Your task to perform on an android device: turn off airplane mode Image 0: 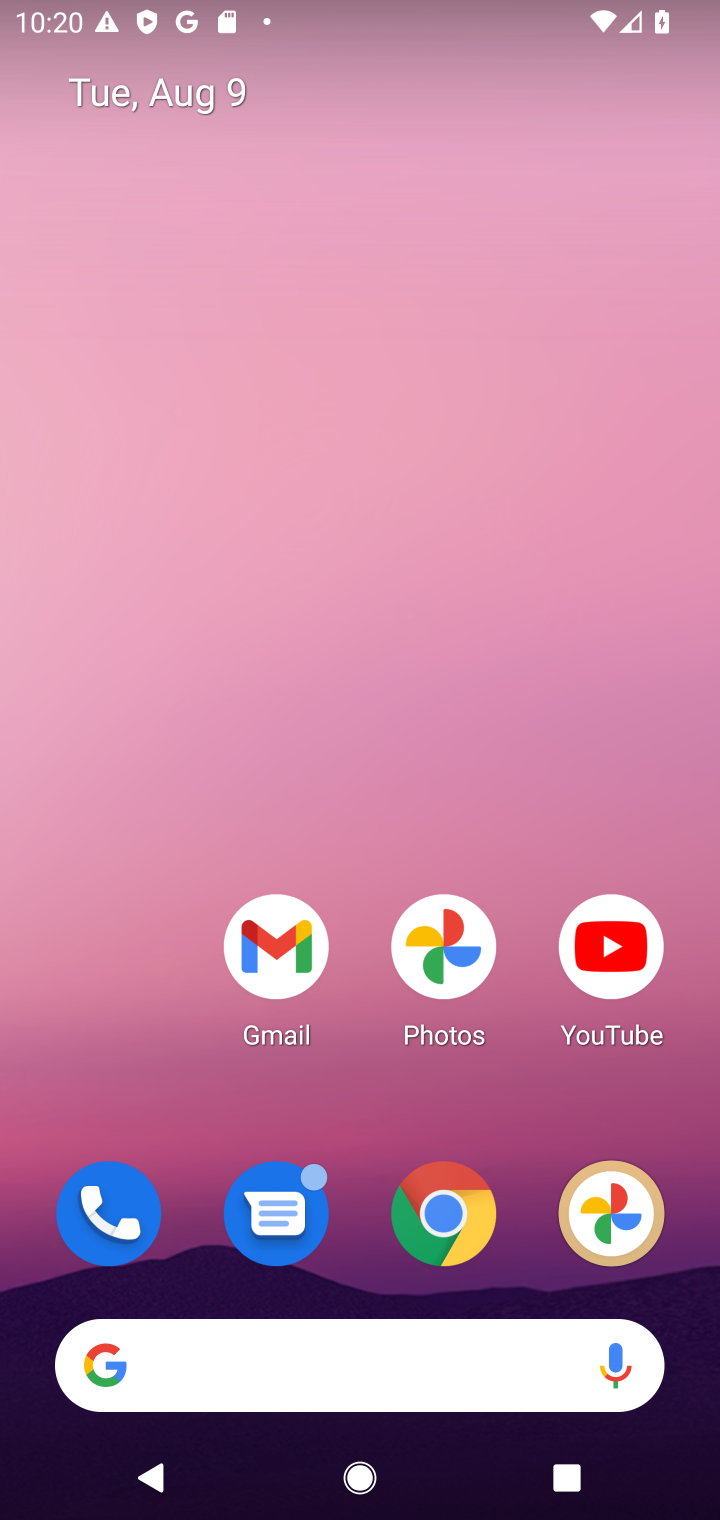
Step 0: drag from (344, 1282) to (394, 44)
Your task to perform on an android device: turn off airplane mode Image 1: 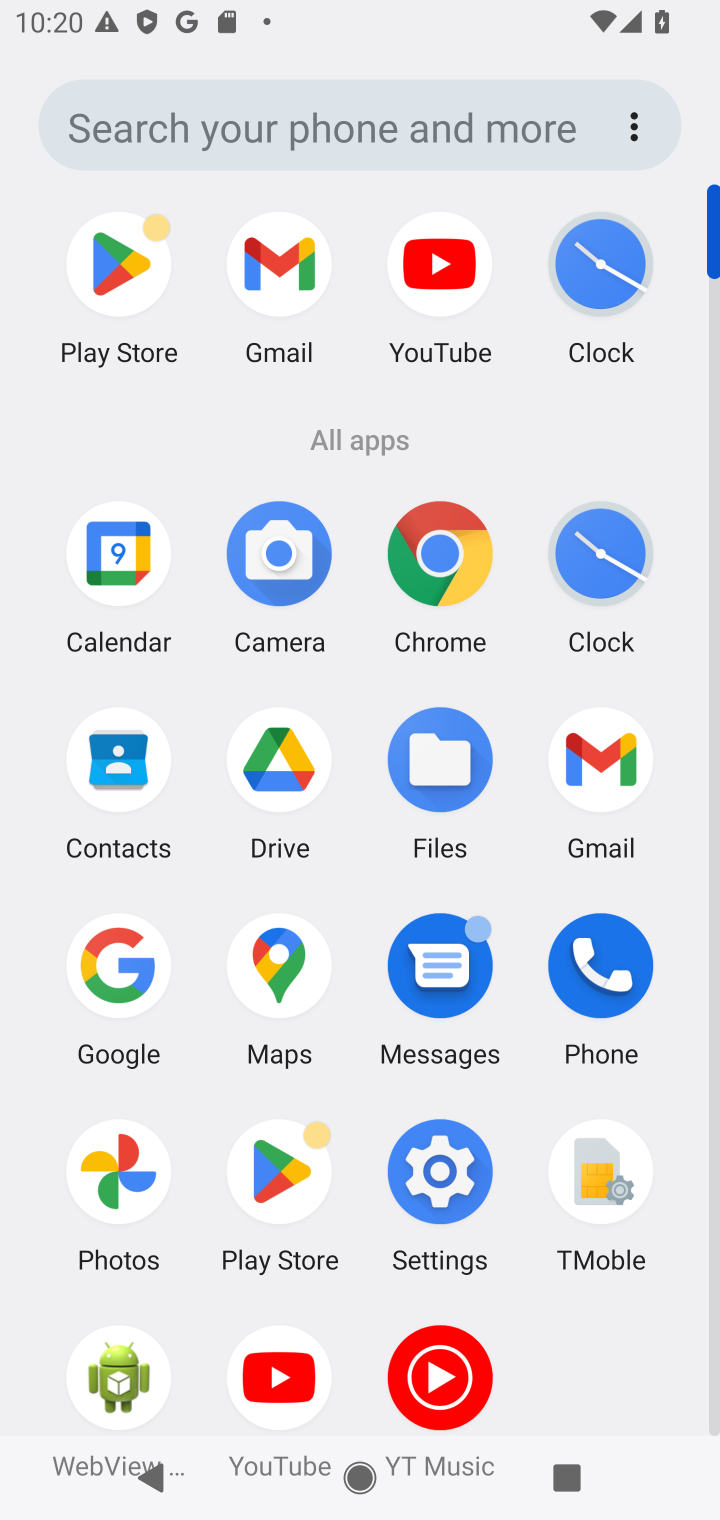
Step 1: click (457, 1197)
Your task to perform on an android device: turn off airplane mode Image 2: 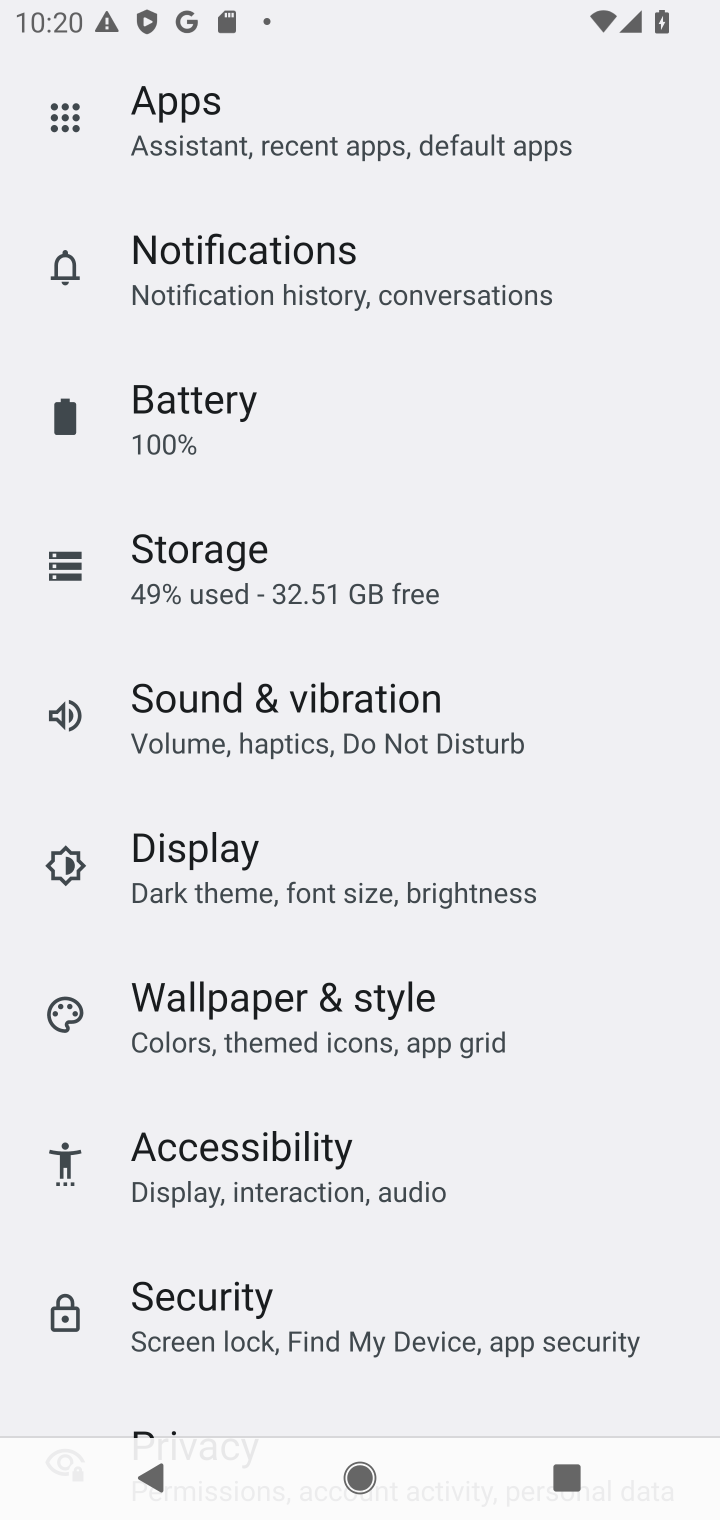
Step 2: drag from (166, 332) to (210, 947)
Your task to perform on an android device: turn off airplane mode Image 3: 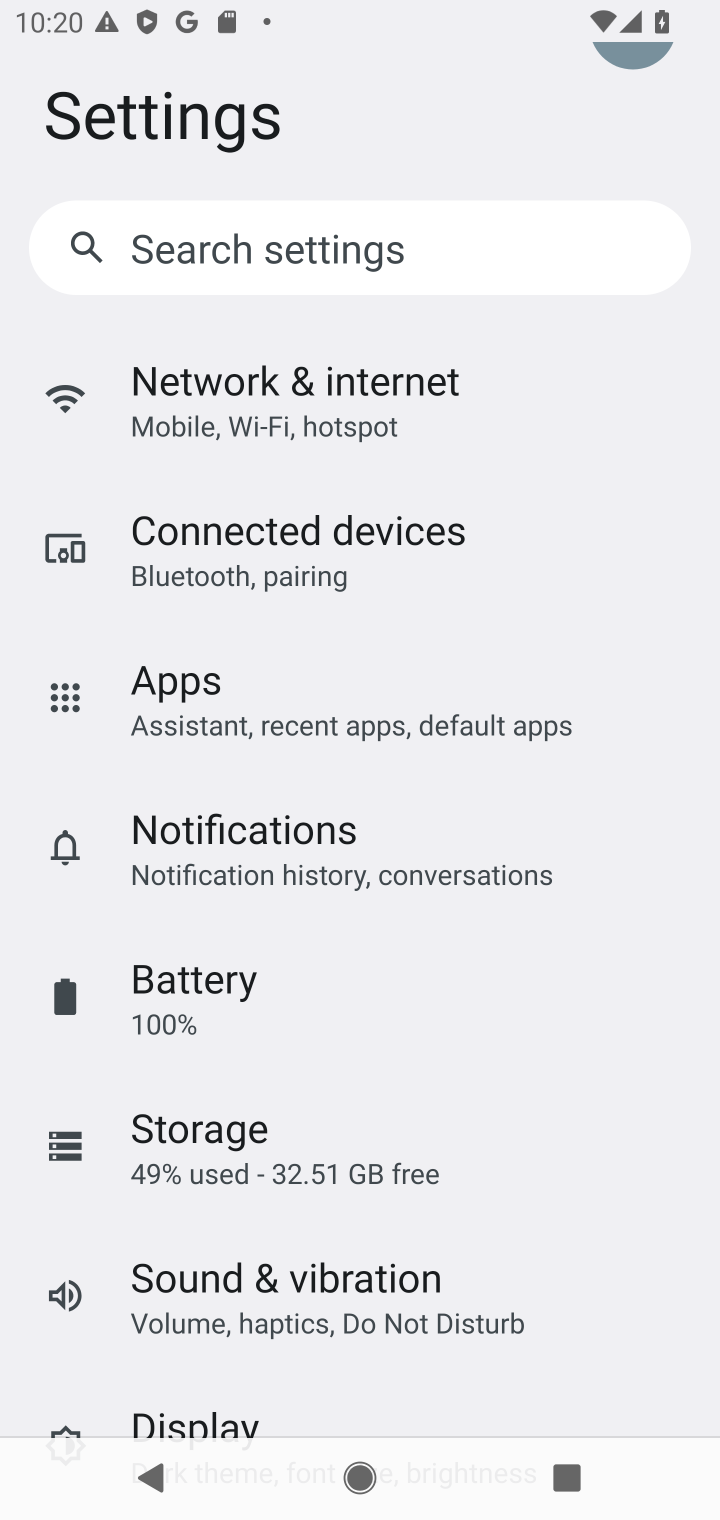
Step 3: click (337, 413)
Your task to perform on an android device: turn off airplane mode Image 4: 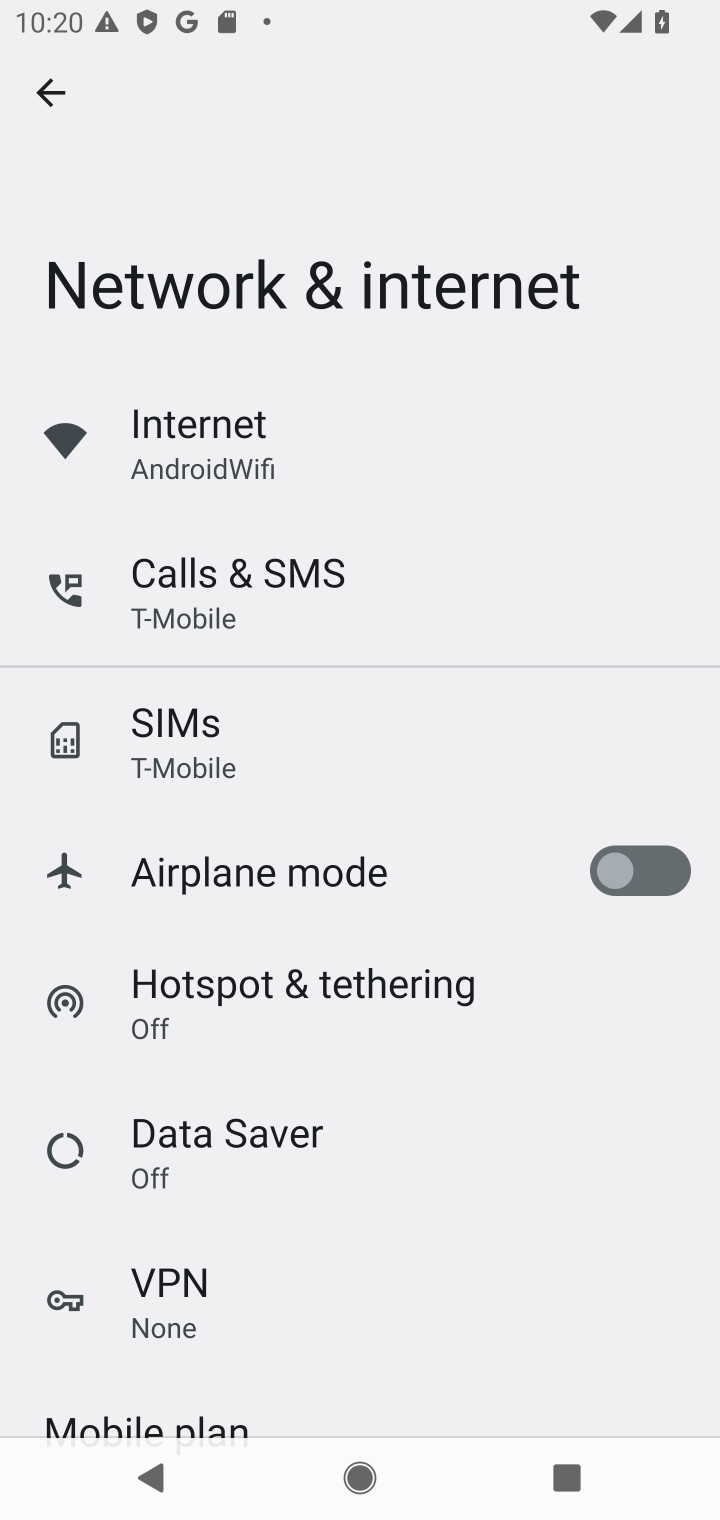
Step 4: click (172, 444)
Your task to perform on an android device: turn off airplane mode Image 5: 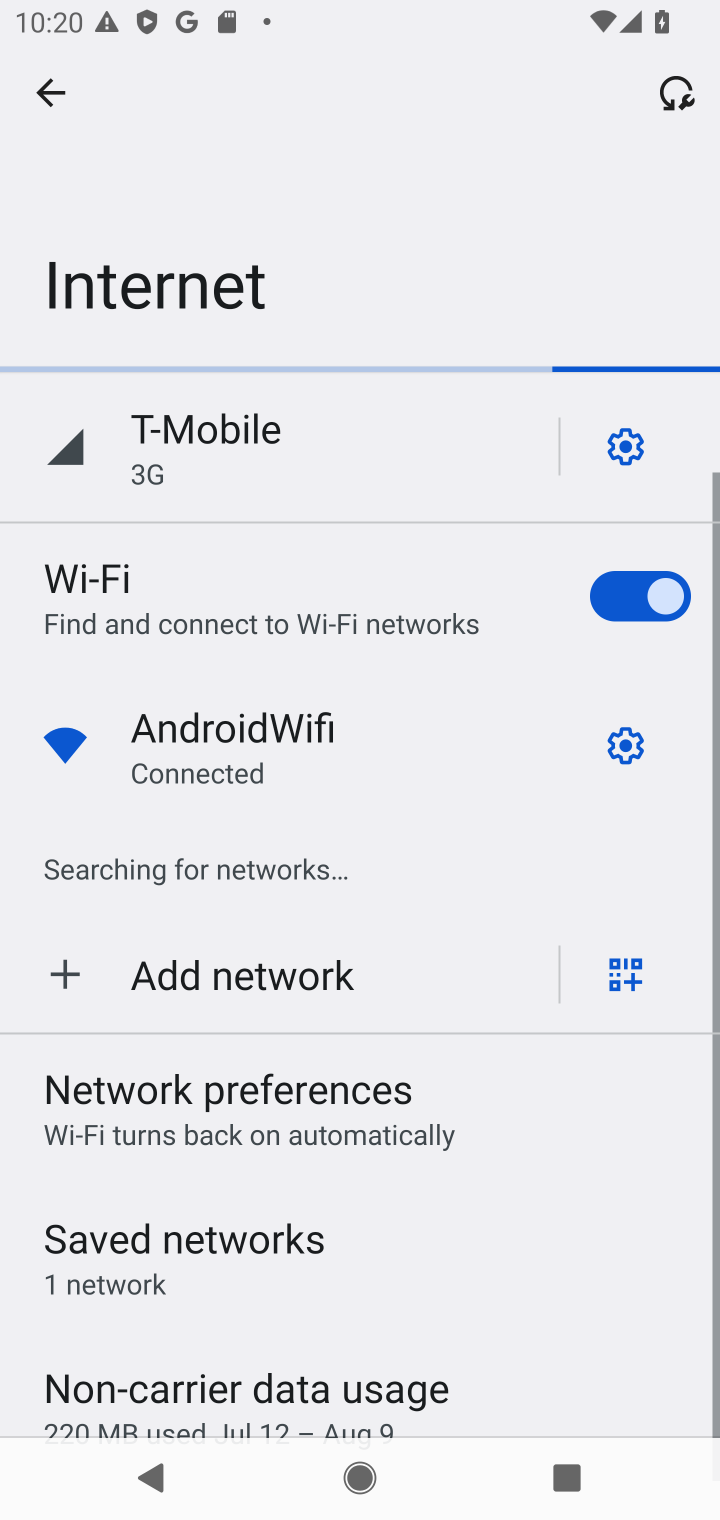
Step 5: click (39, 104)
Your task to perform on an android device: turn off airplane mode Image 6: 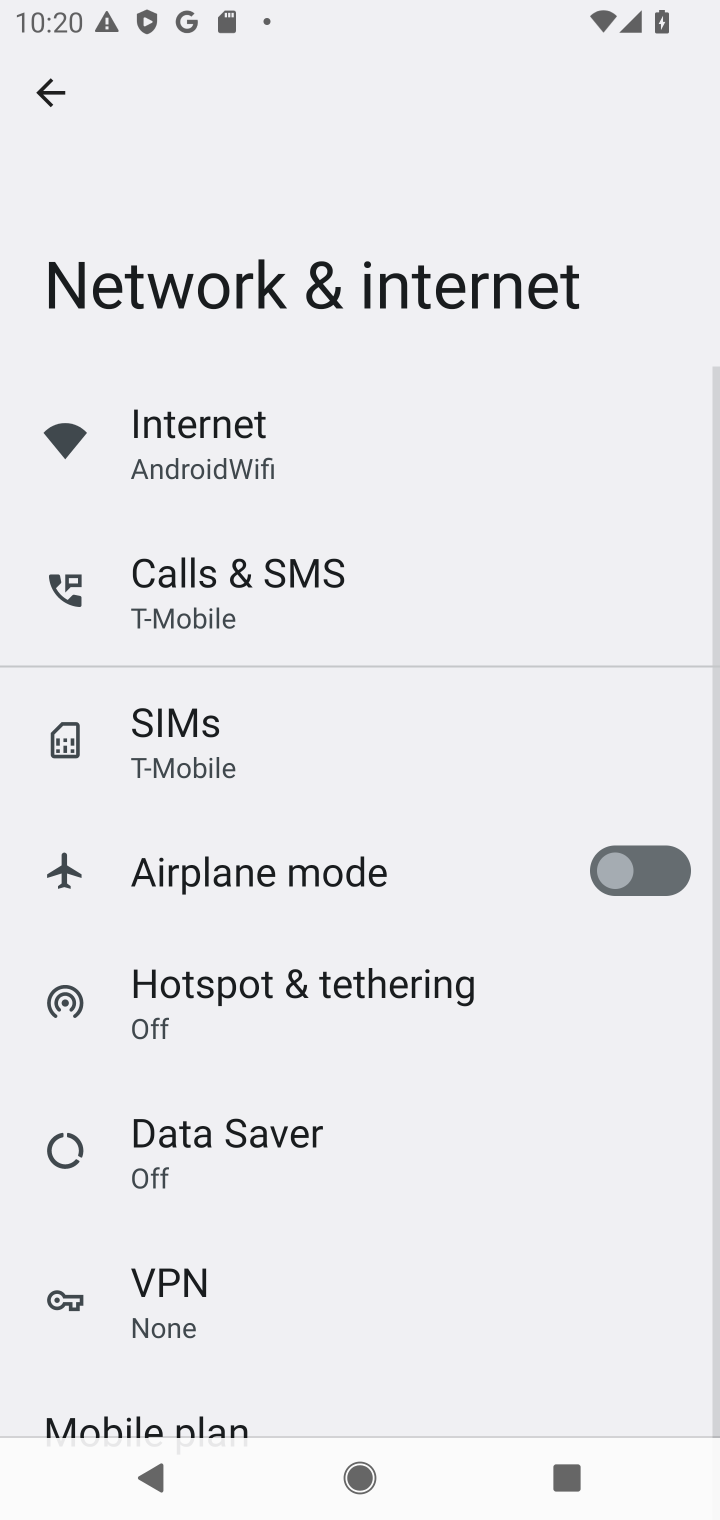
Step 6: task complete